Your task to perform on an android device: What's the weather? Image 0: 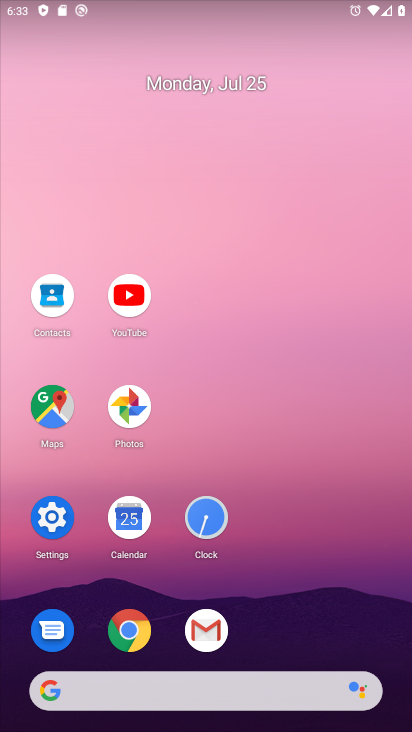
Step 0: click (188, 702)
Your task to perform on an android device: What's the weather? Image 1: 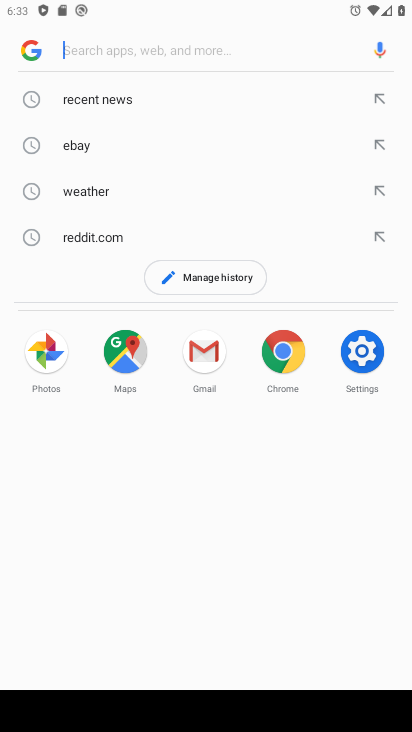
Step 1: click (89, 191)
Your task to perform on an android device: What's the weather? Image 2: 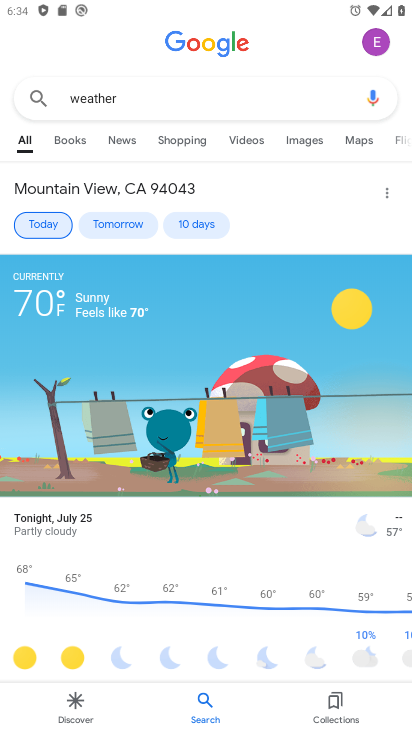
Step 2: task complete